Your task to perform on an android device: open a bookmark in the chrome app Image 0: 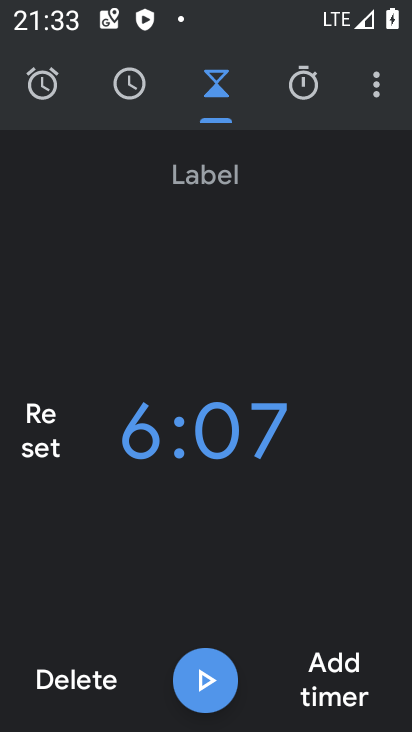
Step 0: press home button
Your task to perform on an android device: open a bookmark in the chrome app Image 1: 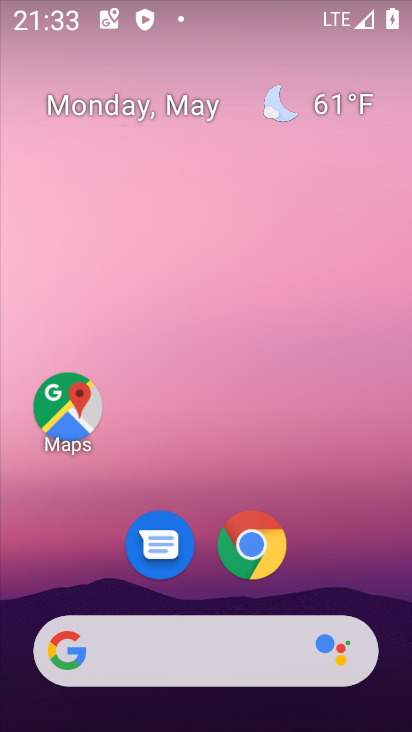
Step 1: click (265, 560)
Your task to perform on an android device: open a bookmark in the chrome app Image 2: 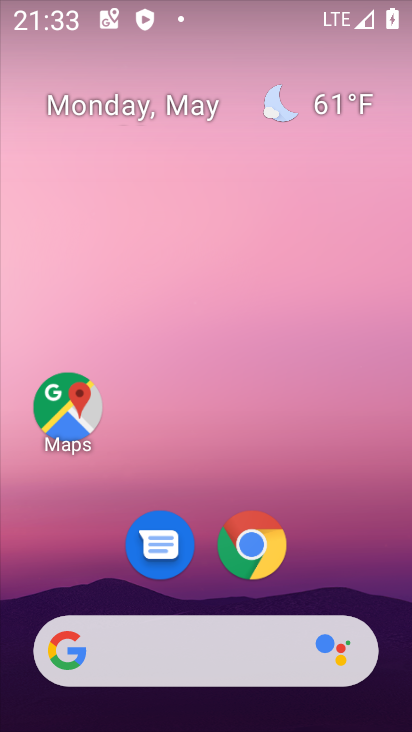
Step 2: click (265, 560)
Your task to perform on an android device: open a bookmark in the chrome app Image 3: 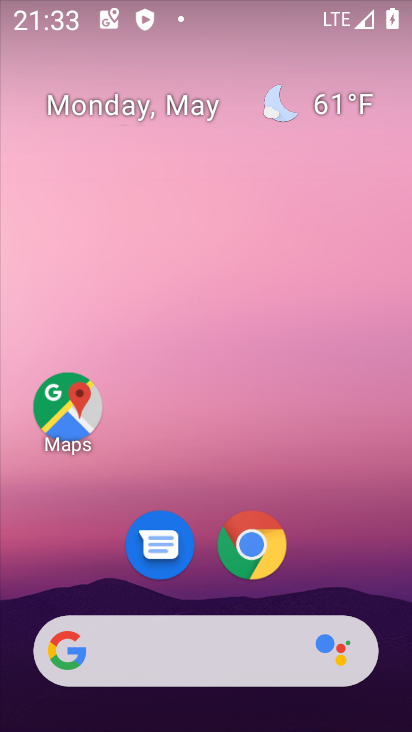
Step 3: click (265, 560)
Your task to perform on an android device: open a bookmark in the chrome app Image 4: 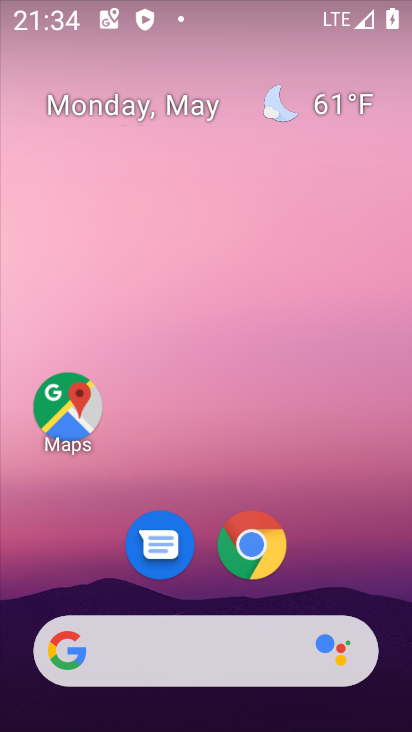
Step 4: click (265, 560)
Your task to perform on an android device: open a bookmark in the chrome app Image 5: 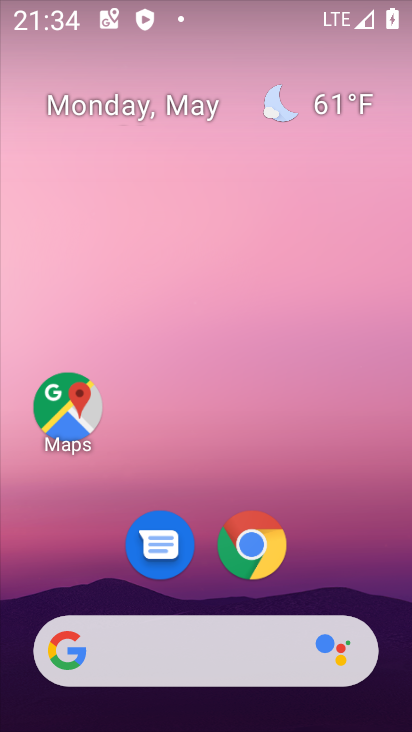
Step 5: click (265, 560)
Your task to perform on an android device: open a bookmark in the chrome app Image 6: 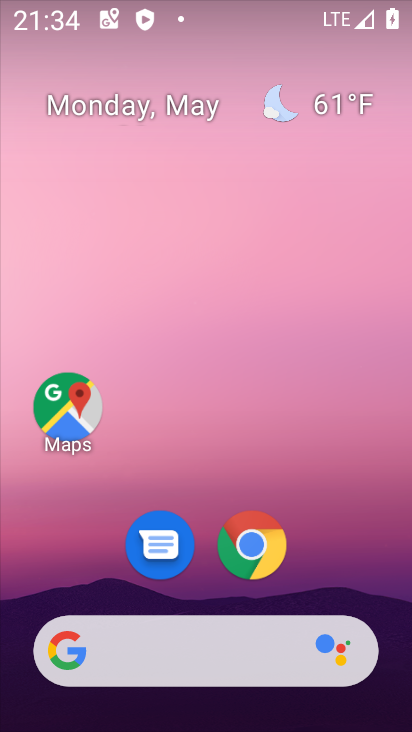
Step 6: click (265, 560)
Your task to perform on an android device: open a bookmark in the chrome app Image 7: 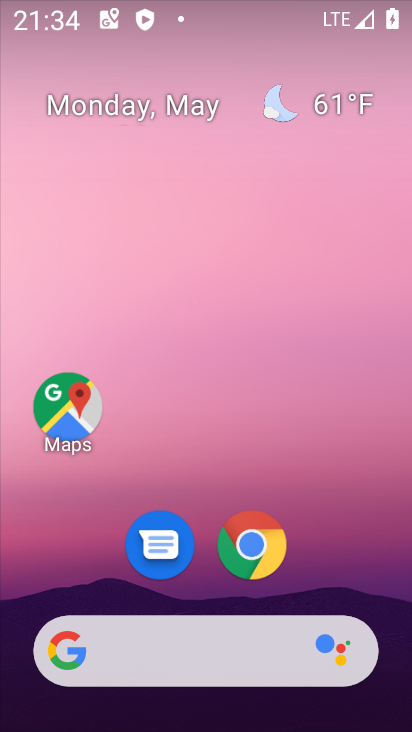
Step 7: click (265, 560)
Your task to perform on an android device: open a bookmark in the chrome app Image 8: 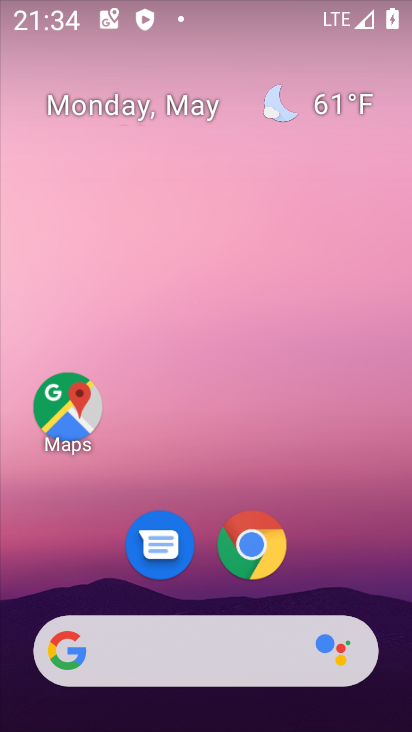
Step 8: click (257, 544)
Your task to perform on an android device: open a bookmark in the chrome app Image 9: 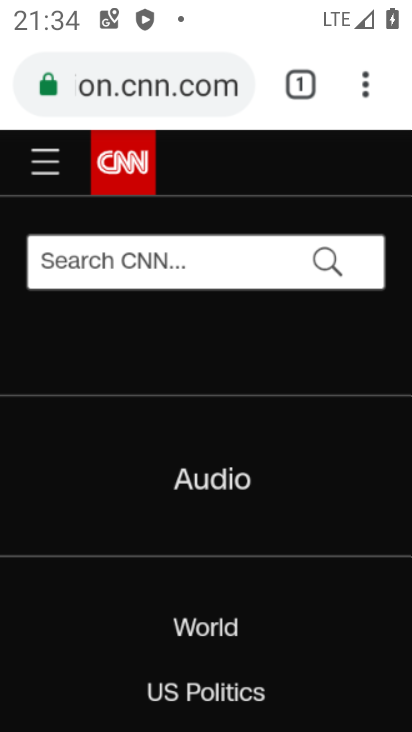
Step 9: drag from (370, 89) to (162, 330)
Your task to perform on an android device: open a bookmark in the chrome app Image 10: 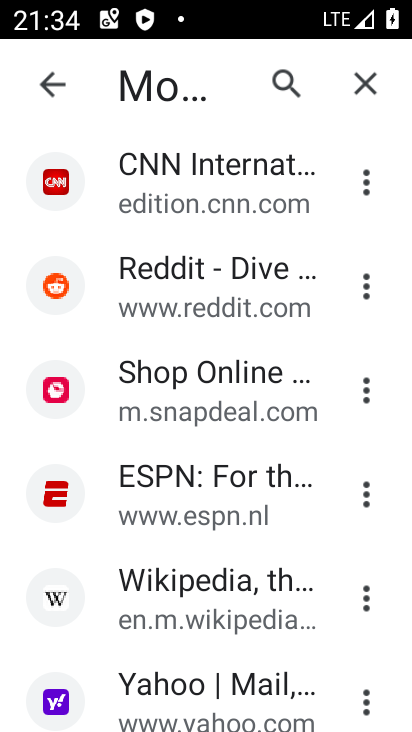
Step 10: click (213, 298)
Your task to perform on an android device: open a bookmark in the chrome app Image 11: 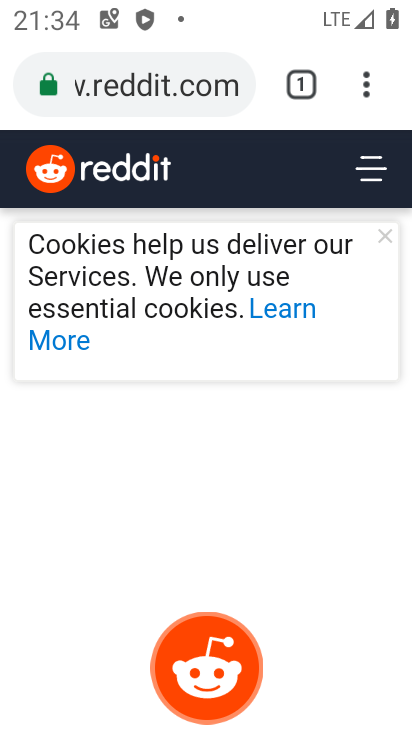
Step 11: task complete